Your task to perform on an android device: allow notifications from all sites in the chrome app Image 0: 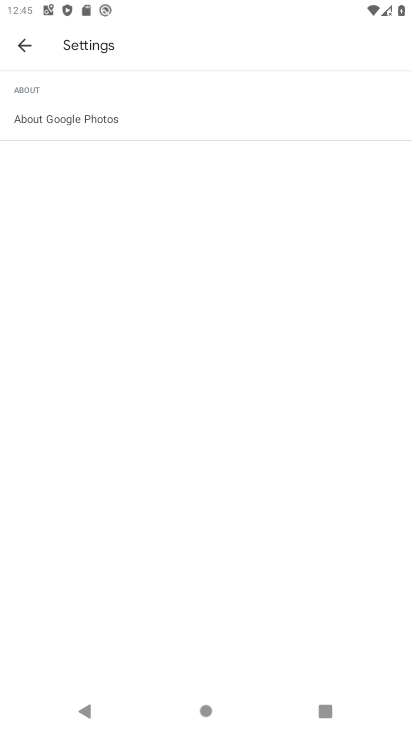
Step 0: press home button
Your task to perform on an android device: allow notifications from all sites in the chrome app Image 1: 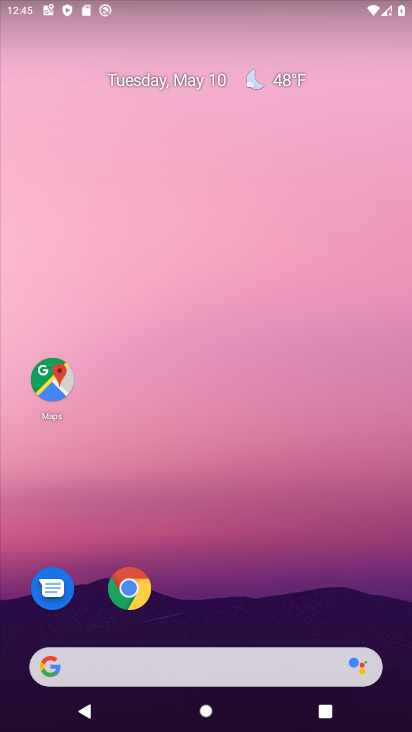
Step 1: click (228, 528)
Your task to perform on an android device: allow notifications from all sites in the chrome app Image 2: 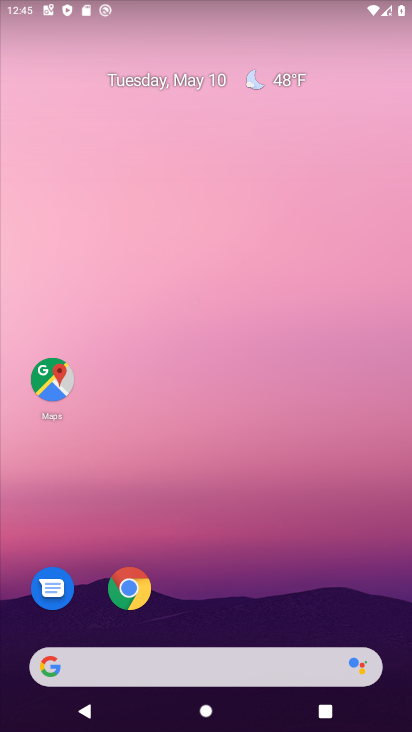
Step 2: click (124, 579)
Your task to perform on an android device: allow notifications from all sites in the chrome app Image 3: 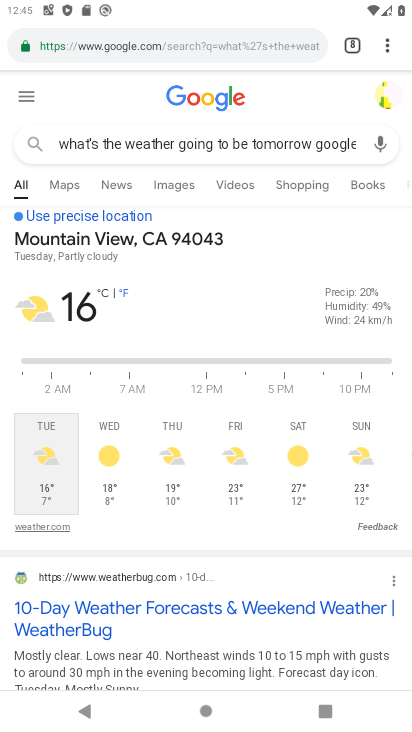
Step 3: click (381, 43)
Your task to perform on an android device: allow notifications from all sites in the chrome app Image 4: 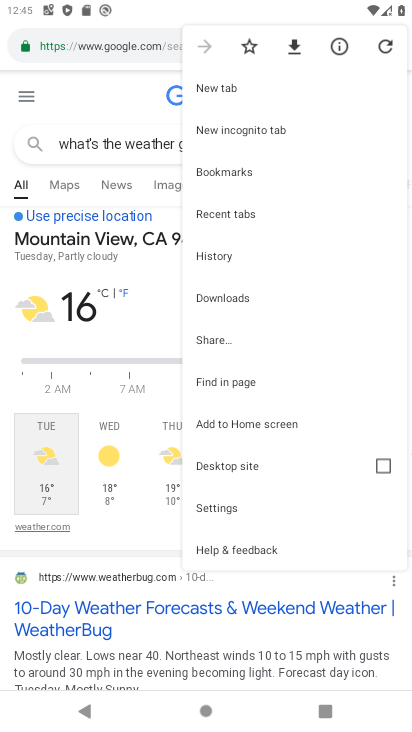
Step 4: click (266, 500)
Your task to perform on an android device: allow notifications from all sites in the chrome app Image 5: 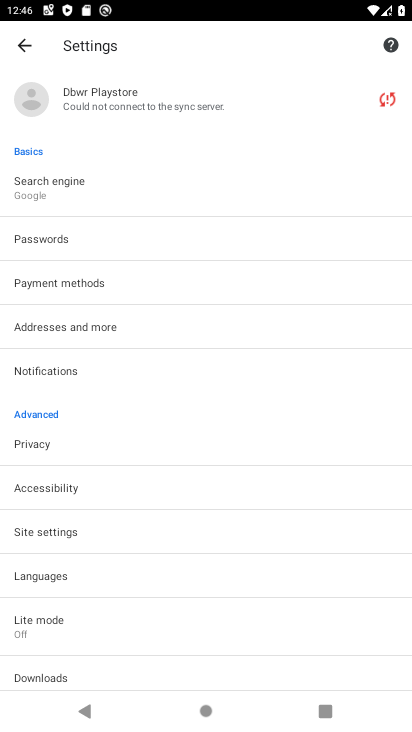
Step 5: click (105, 541)
Your task to perform on an android device: allow notifications from all sites in the chrome app Image 6: 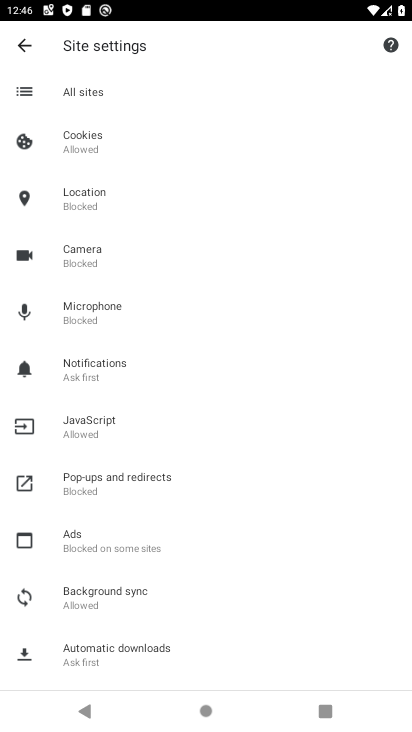
Step 6: click (125, 139)
Your task to perform on an android device: allow notifications from all sites in the chrome app Image 7: 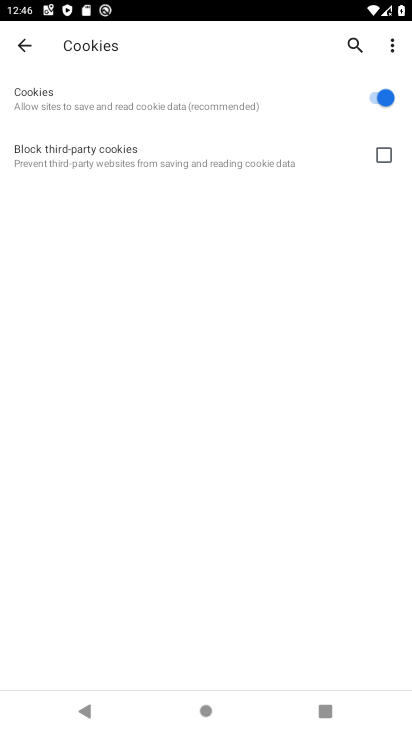
Step 7: click (9, 41)
Your task to perform on an android device: allow notifications from all sites in the chrome app Image 8: 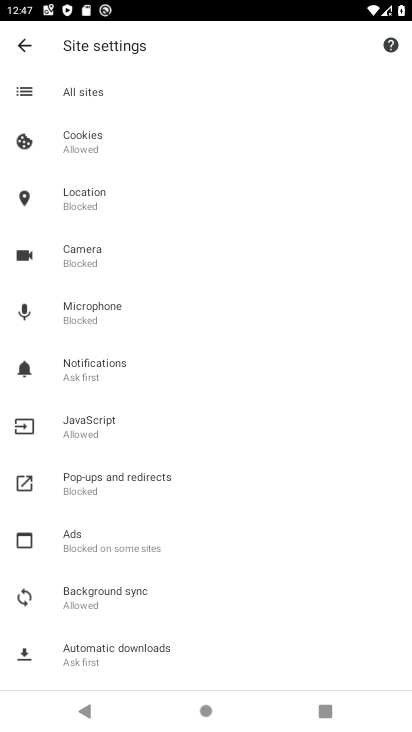
Step 8: task complete